Your task to perform on an android device: Open sound settings Image 0: 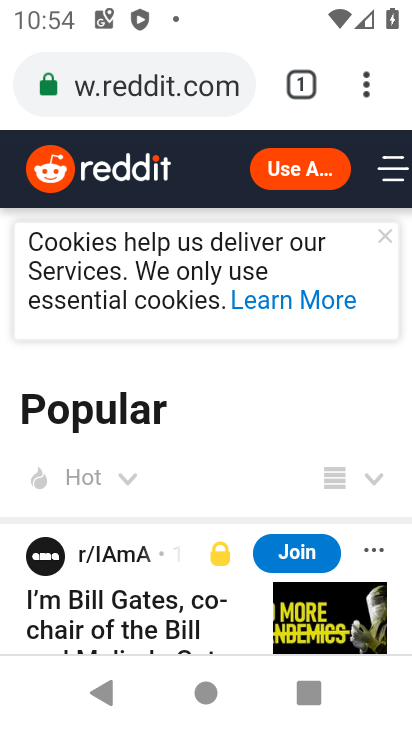
Step 0: press home button
Your task to perform on an android device: Open sound settings Image 1: 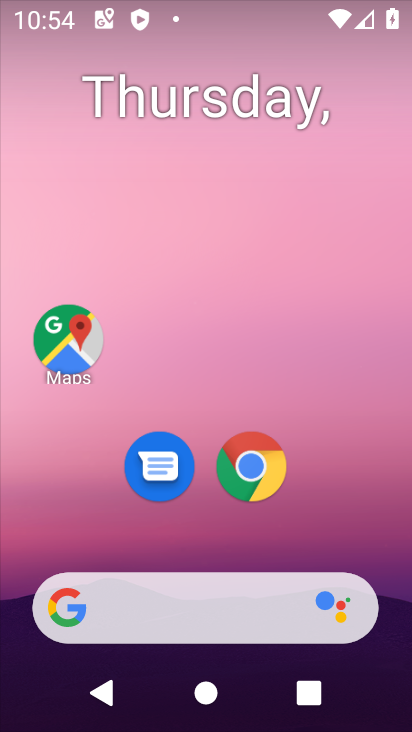
Step 1: drag from (225, 556) to (382, 484)
Your task to perform on an android device: Open sound settings Image 2: 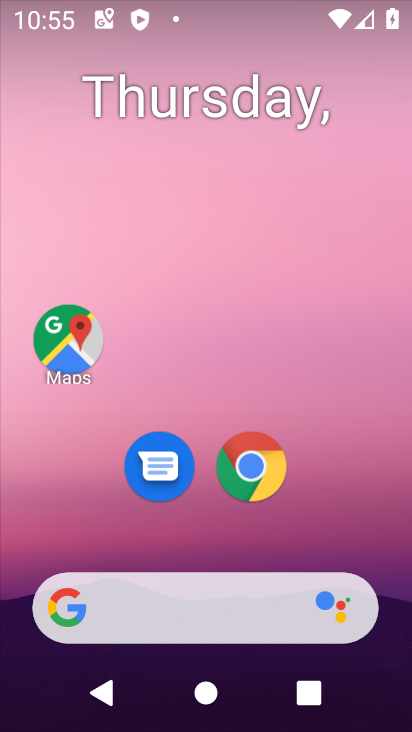
Step 2: drag from (211, 540) to (151, 6)
Your task to perform on an android device: Open sound settings Image 3: 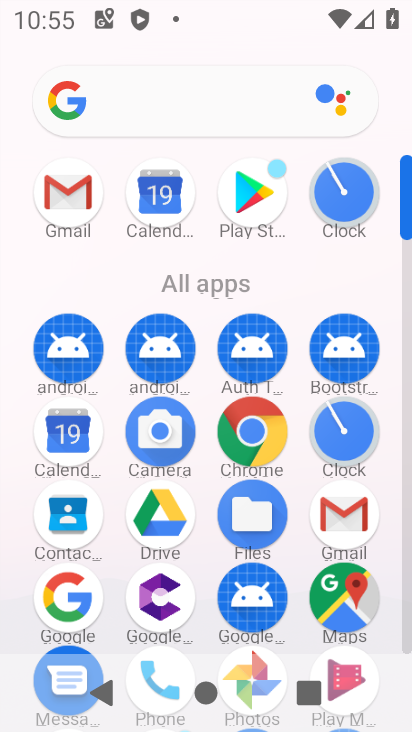
Step 3: drag from (195, 470) to (199, 10)
Your task to perform on an android device: Open sound settings Image 4: 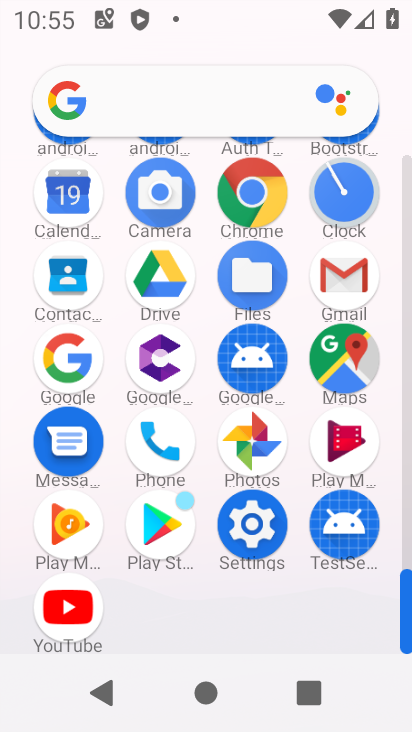
Step 4: click (263, 511)
Your task to perform on an android device: Open sound settings Image 5: 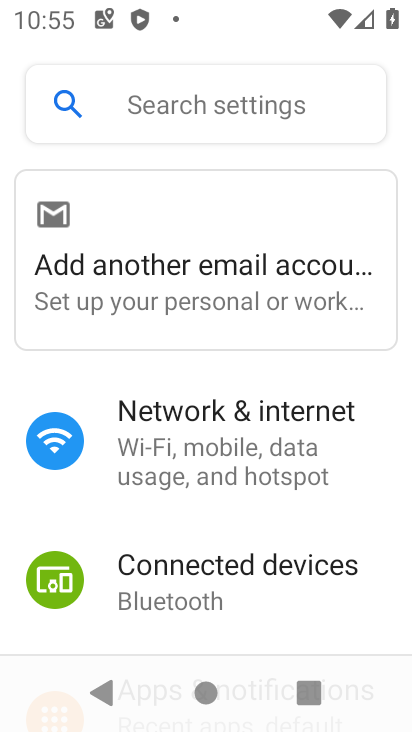
Step 5: drag from (247, 532) to (191, 1)
Your task to perform on an android device: Open sound settings Image 6: 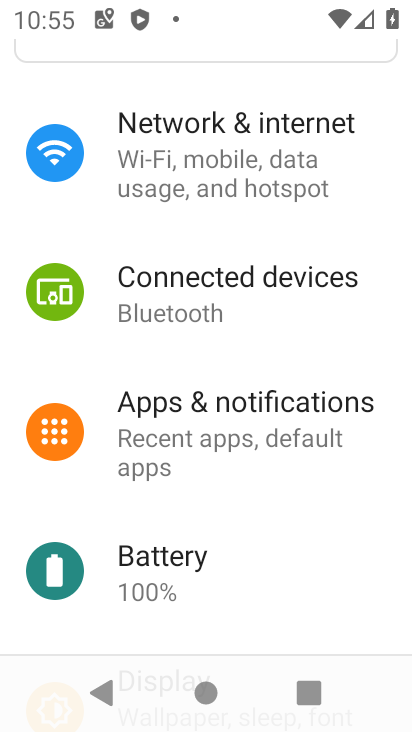
Step 6: drag from (219, 534) to (169, 105)
Your task to perform on an android device: Open sound settings Image 7: 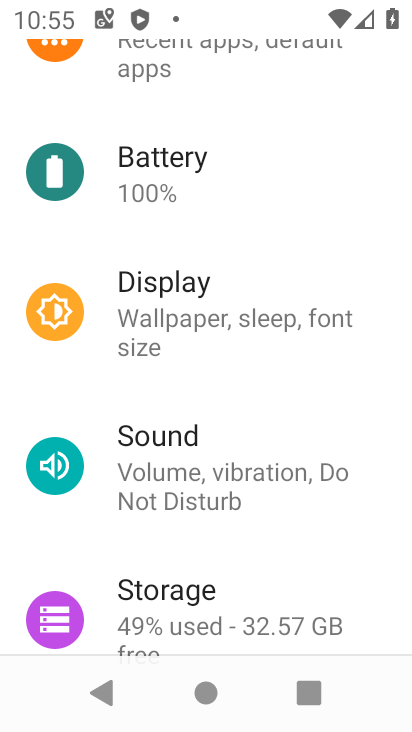
Step 7: click (191, 463)
Your task to perform on an android device: Open sound settings Image 8: 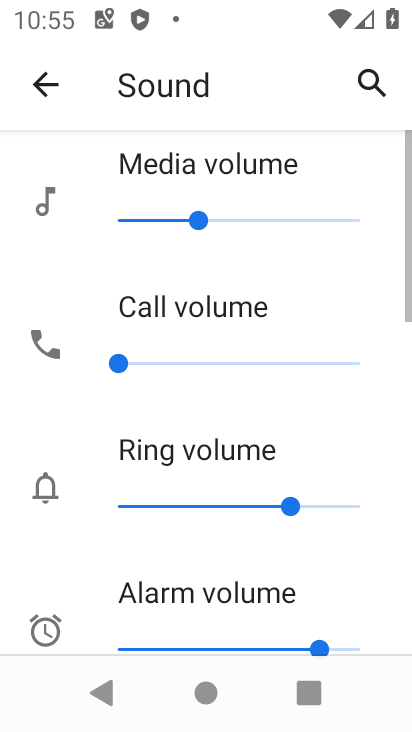
Step 8: task complete